Your task to perform on an android device: turn on wifi Image 0: 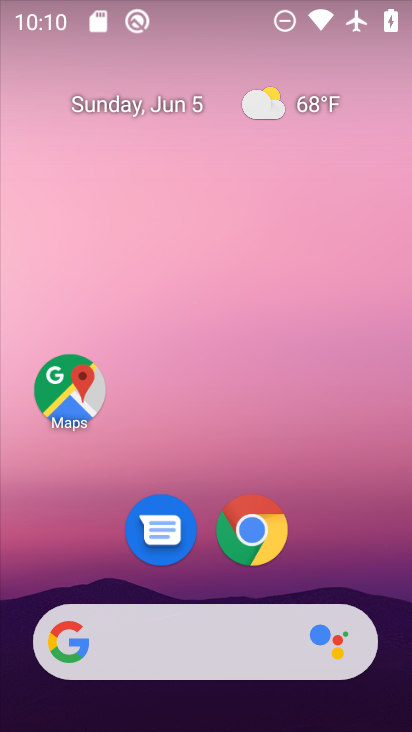
Step 0: drag from (390, 598) to (326, 110)
Your task to perform on an android device: turn on wifi Image 1: 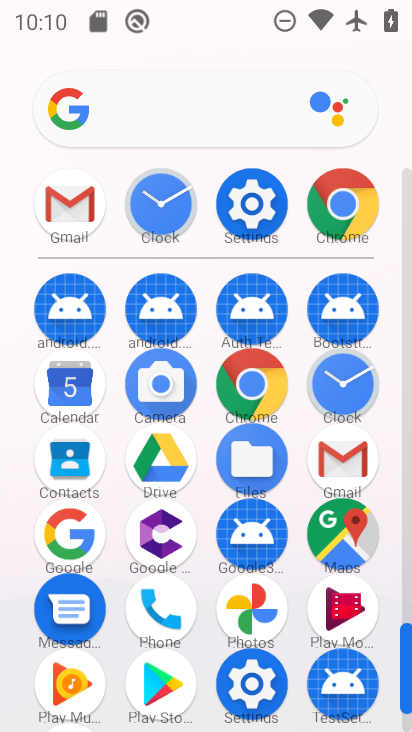
Step 1: click (250, 686)
Your task to perform on an android device: turn on wifi Image 2: 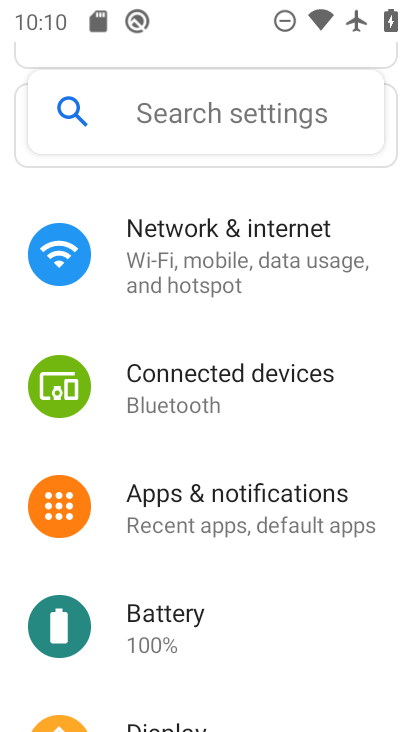
Step 2: click (209, 274)
Your task to perform on an android device: turn on wifi Image 3: 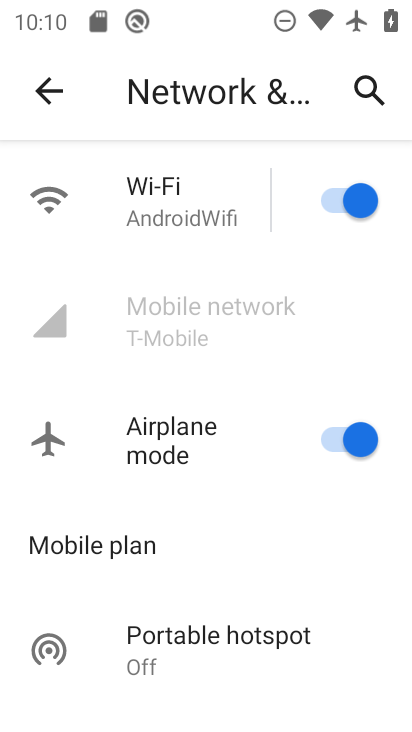
Step 3: task complete